Your task to perform on an android device: Open wifi settings Image 0: 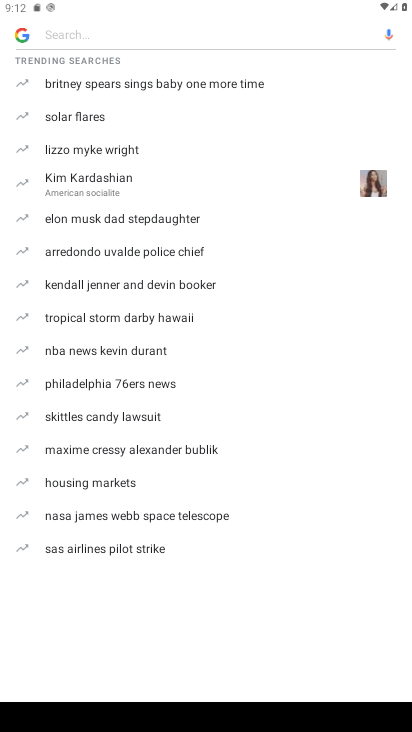
Step 0: press back button
Your task to perform on an android device: Open wifi settings Image 1: 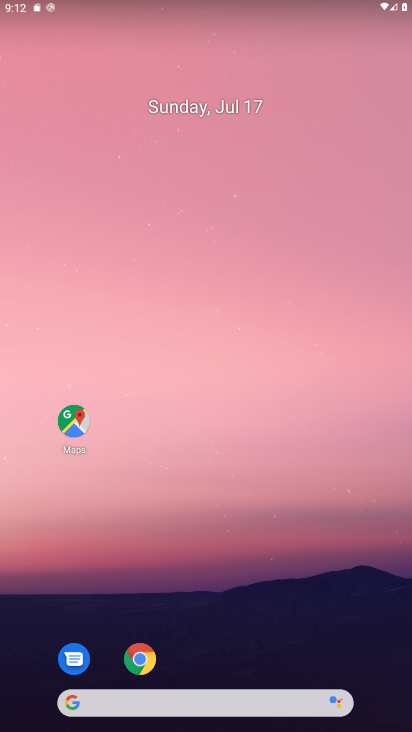
Step 1: drag from (180, 713) to (223, 1)
Your task to perform on an android device: Open wifi settings Image 2: 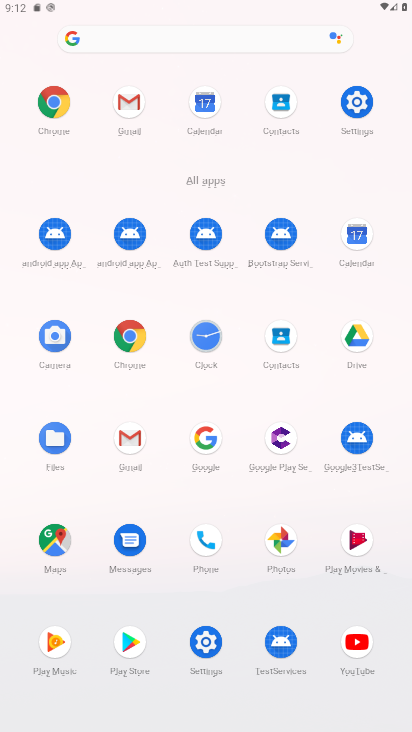
Step 2: click (355, 118)
Your task to perform on an android device: Open wifi settings Image 3: 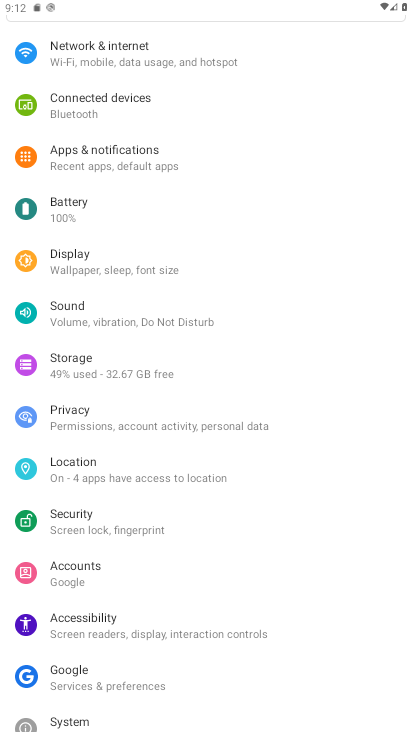
Step 3: click (80, 45)
Your task to perform on an android device: Open wifi settings Image 4: 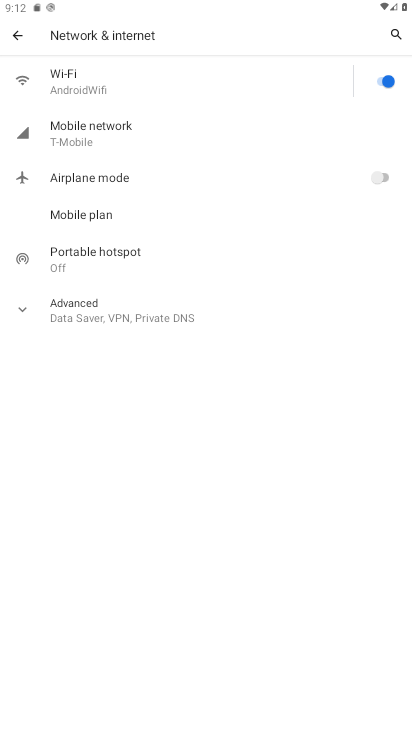
Step 4: click (129, 89)
Your task to perform on an android device: Open wifi settings Image 5: 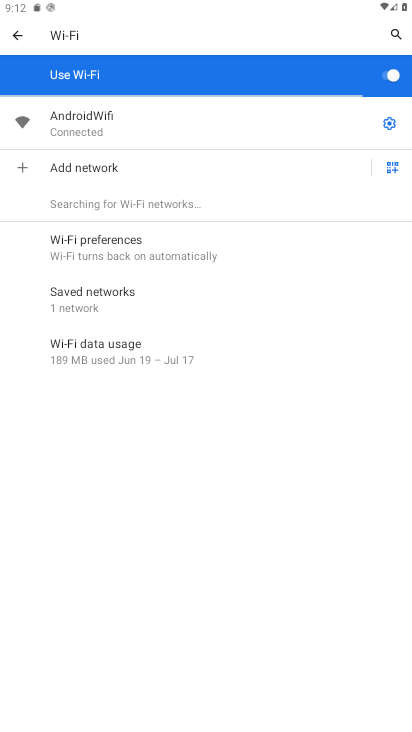
Step 5: task complete